Your task to perform on an android device: Search for a 24-inch cordless drill. Image 0: 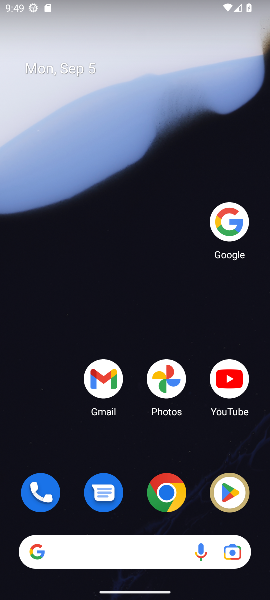
Step 0: click (223, 219)
Your task to perform on an android device: Search for a 24-inch cordless drill. Image 1: 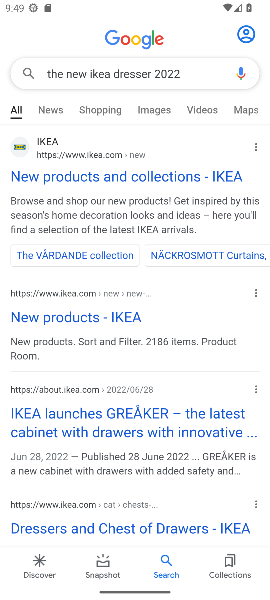
Step 1: click (172, 71)
Your task to perform on an android device: Search for a 24-inch cordless drill. Image 2: 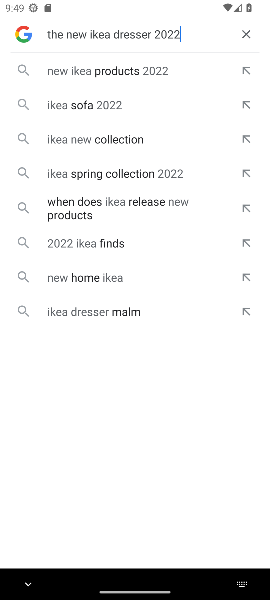
Step 2: click (243, 28)
Your task to perform on an android device: Search for a 24-inch cordless drill. Image 3: 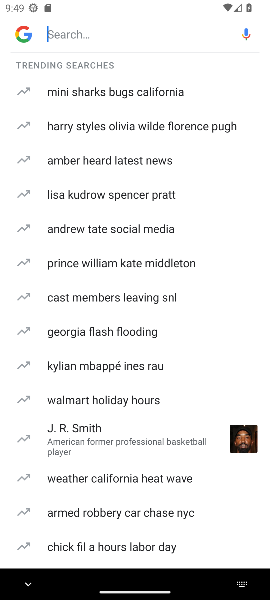
Step 3: click (134, 31)
Your task to perform on an android device: Search for a 24-inch cordless drill. Image 4: 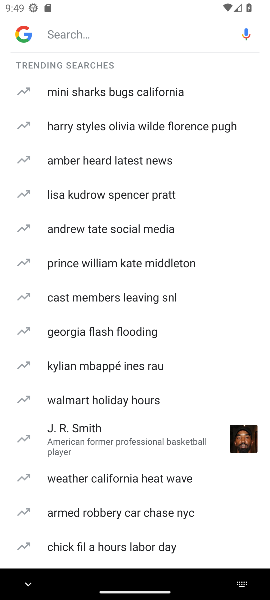
Step 4: type "a 24-inch cordless drill. "
Your task to perform on an android device: Search for a 24-inch cordless drill. Image 5: 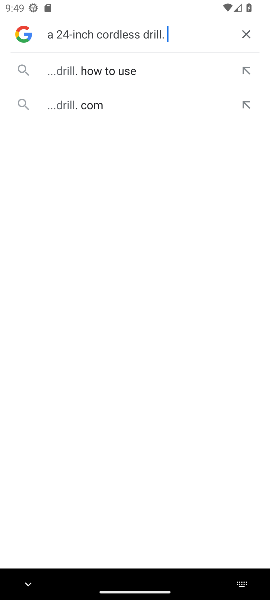
Step 5: click (59, 104)
Your task to perform on an android device: Search for a 24-inch cordless drill. Image 6: 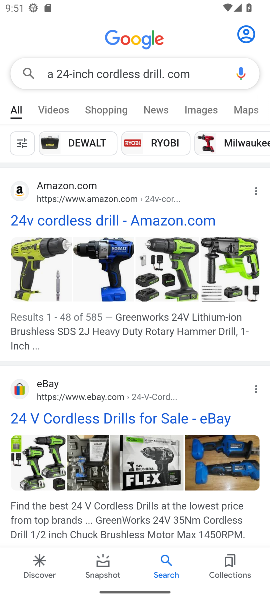
Step 6: click (92, 217)
Your task to perform on an android device: Search for a 24-inch cordless drill. Image 7: 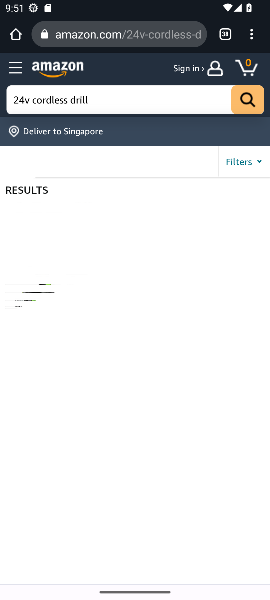
Step 7: task complete